Your task to perform on an android device: create a new album in the google photos Image 0: 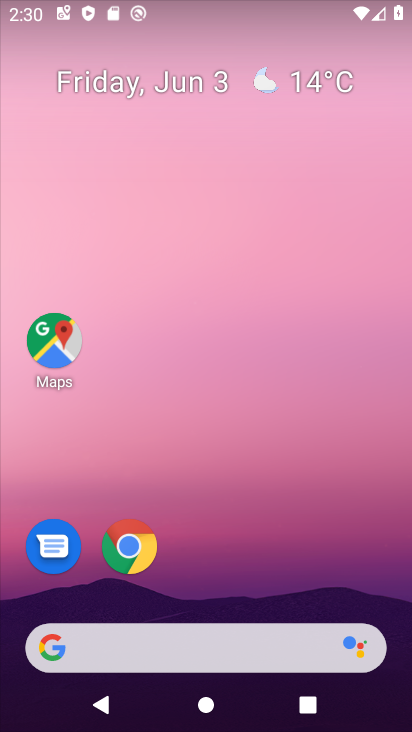
Step 0: drag from (276, 522) to (235, 13)
Your task to perform on an android device: create a new album in the google photos Image 1: 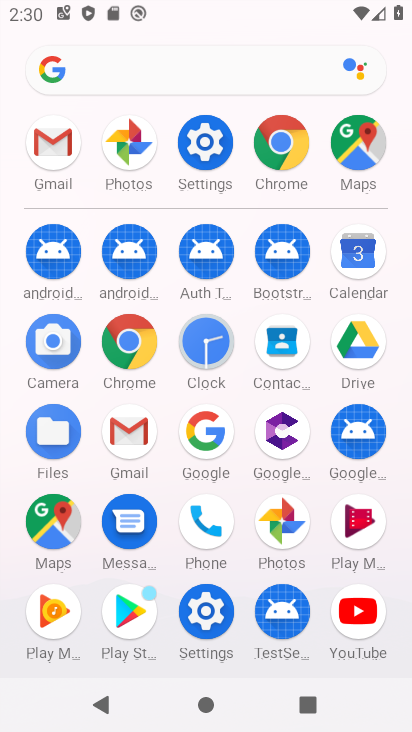
Step 1: click (304, 525)
Your task to perform on an android device: create a new album in the google photos Image 2: 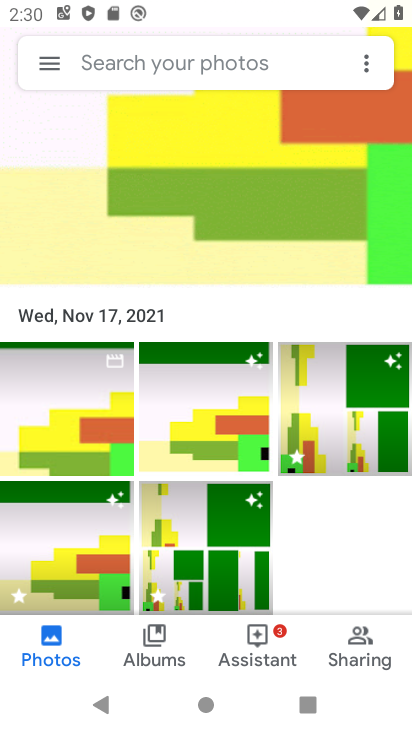
Step 2: click (167, 649)
Your task to perform on an android device: create a new album in the google photos Image 3: 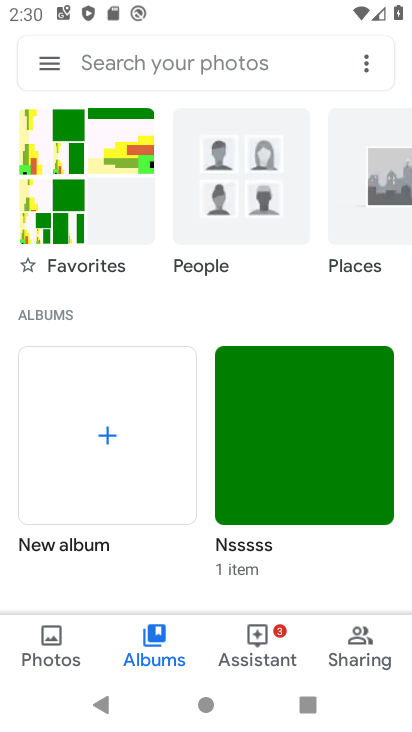
Step 3: click (141, 406)
Your task to perform on an android device: create a new album in the google photos Image 4: 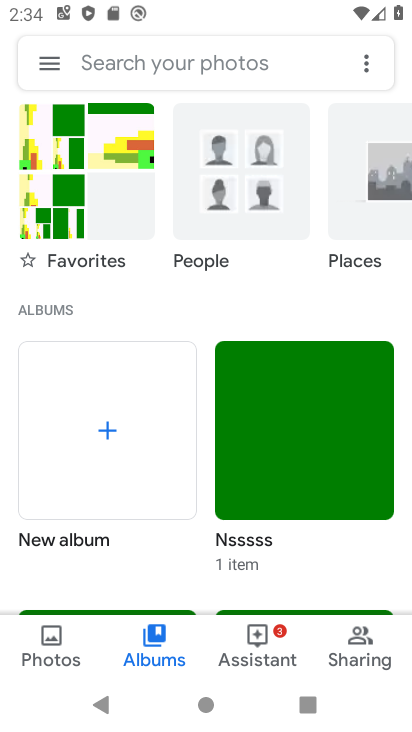
Step 4: click (125, 386)
Your task to perform on an android device: create a new album in the google photos Image 5: 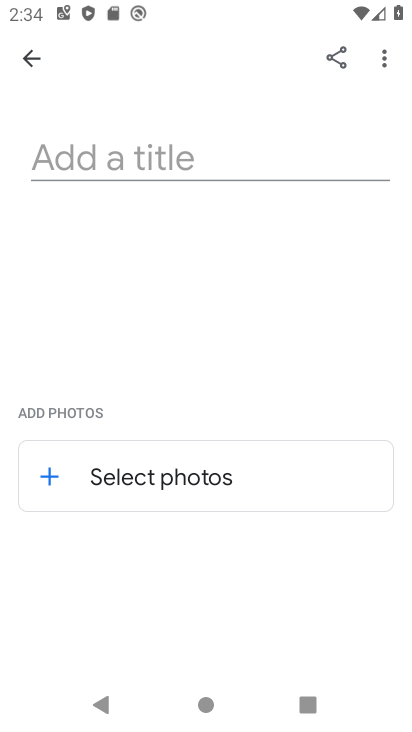
Step 5: type "rtt"
Your task to perform on an android device: create a new album in the google photos Image 6: 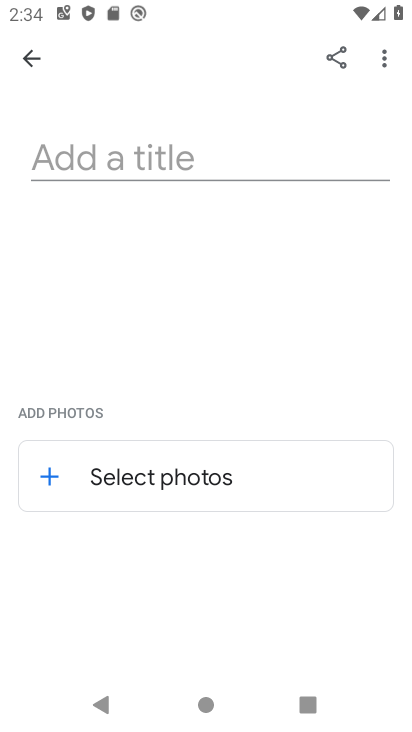
Step 6: click (130, 487)
Your task to perform on an android device: create a new album in the google photos Image 7: 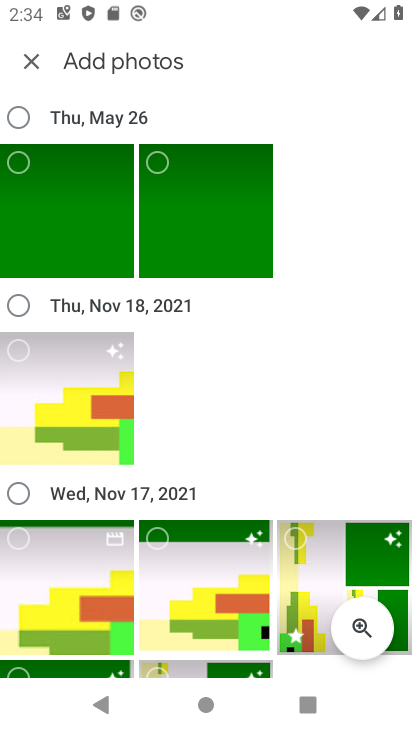
Step 7: click (49, 571)
Your task to perform on an android device: create a new album in the google photos Image 8: 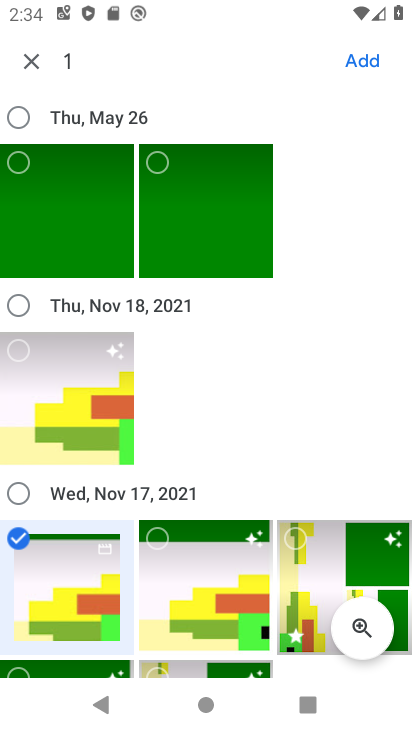
Step 8: click (189, 565)
Your task to perform on an android device: create a new album in the google photos Image 9: 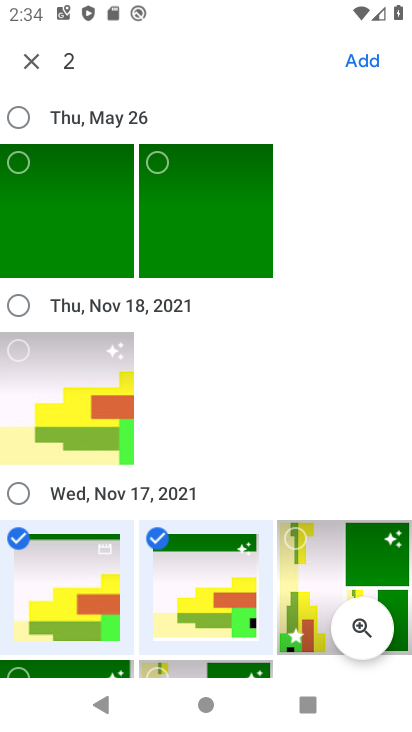
Step 9: click (357, 62)
Your task to perform on an android device: create a new album in the google photos Image 10: 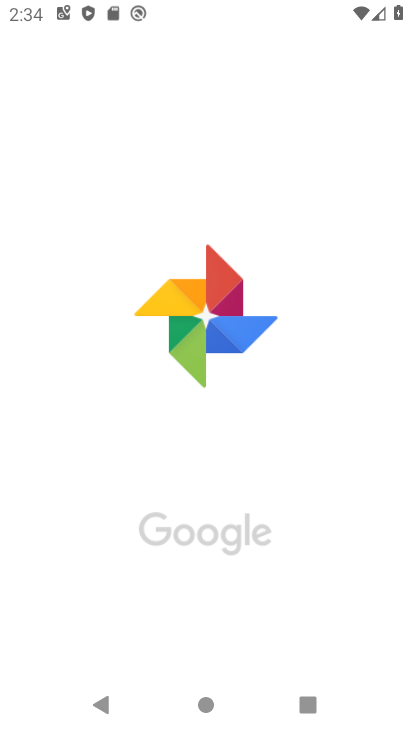
Step 10: task complete